Your task to perform on an android device: turn pop-ups off in chrome Image 0: 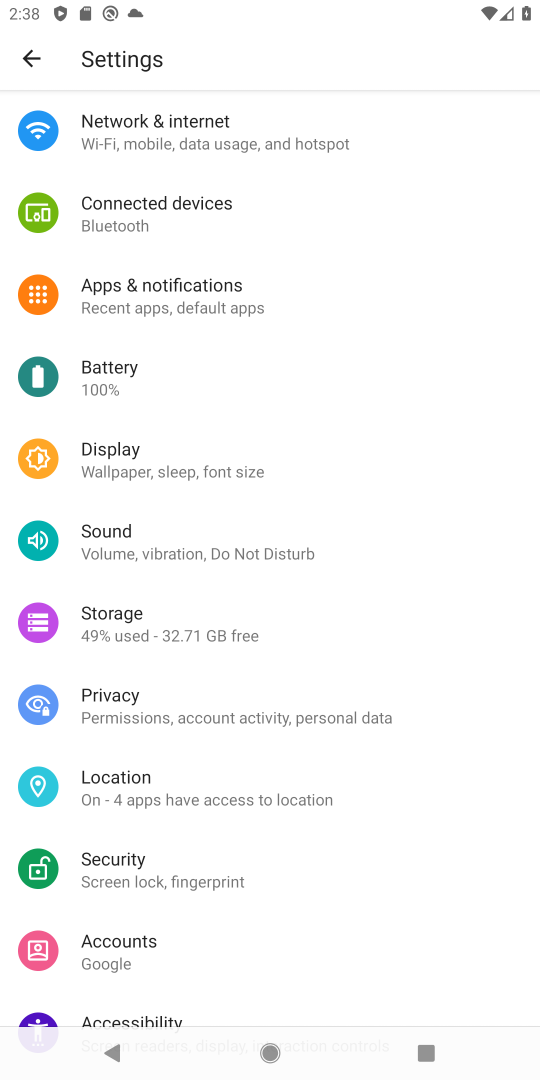
Step 0: press home button
Your task to perform on an android device: turn pop-ups off in chrome Image 1: 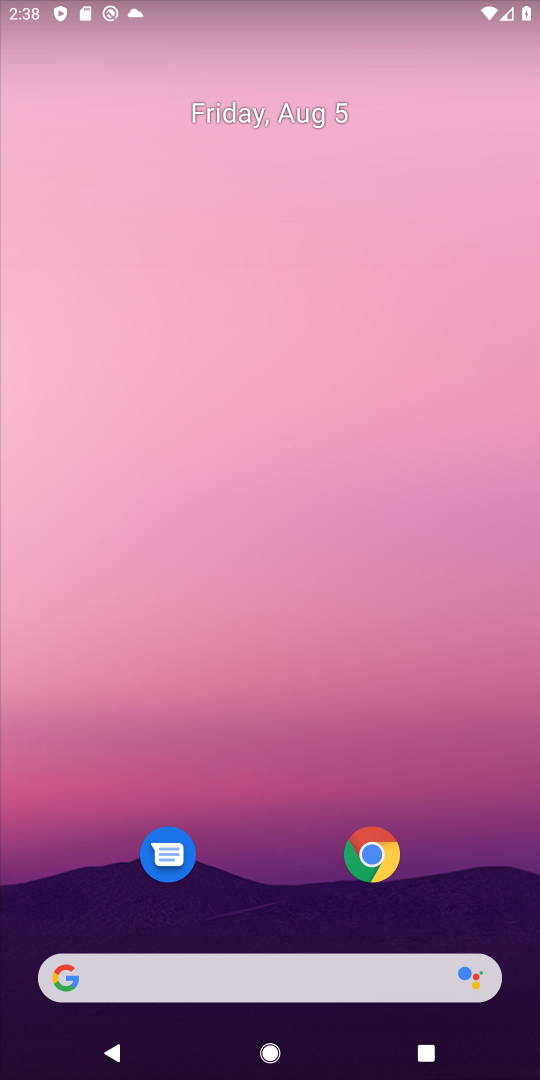
Step 1: click (366, 869)
Your task to perform on an android device: turn pop-ups off in chrome Image 2: 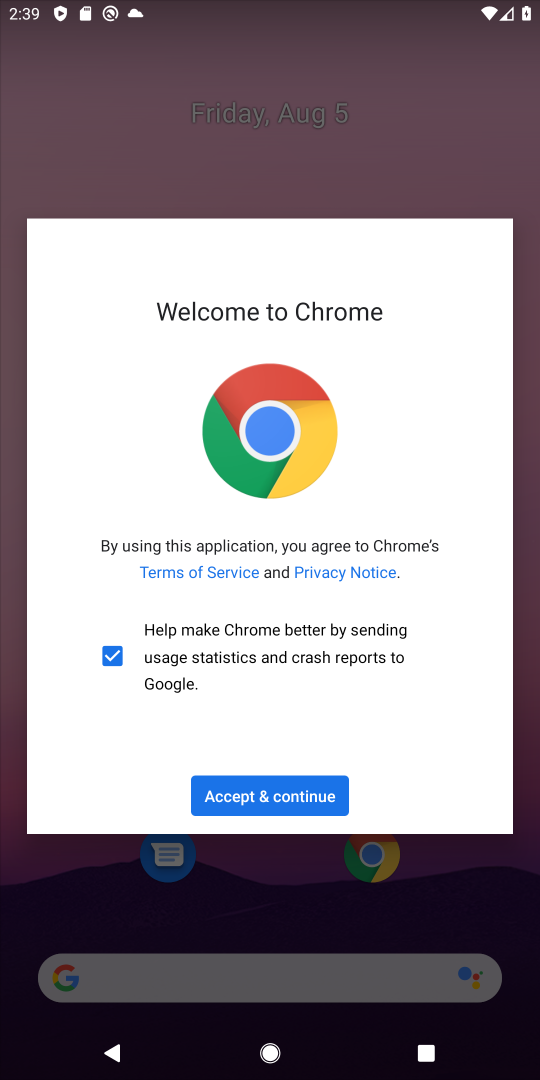
Step 2: click (277, 792)
Your task to perform on an android device: turn pop-ups off in chrome Image 3: 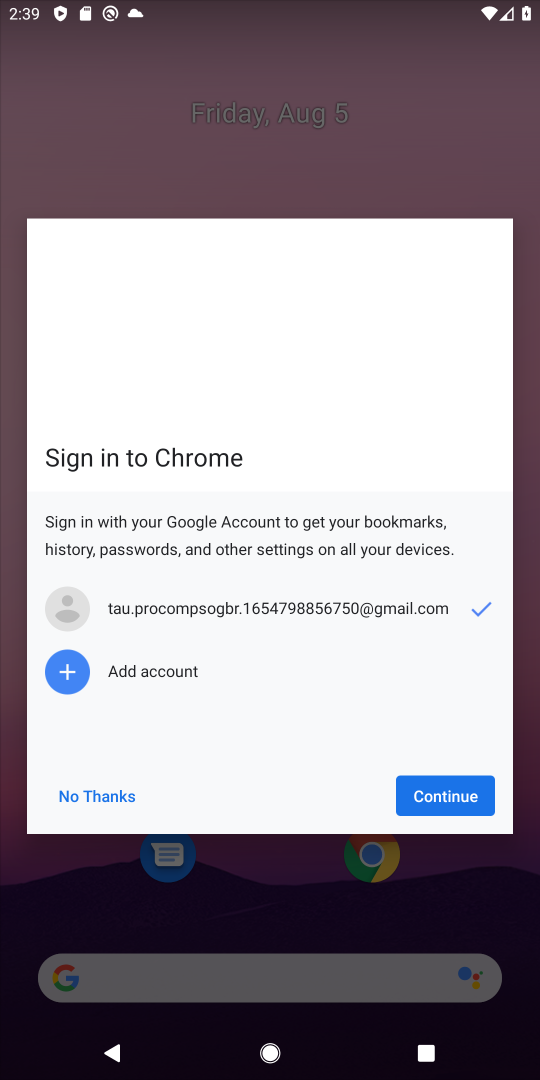
Step 3: click (446, 805)
Your task to perform on an android device: turn pop-ups off in chrome Image 4: 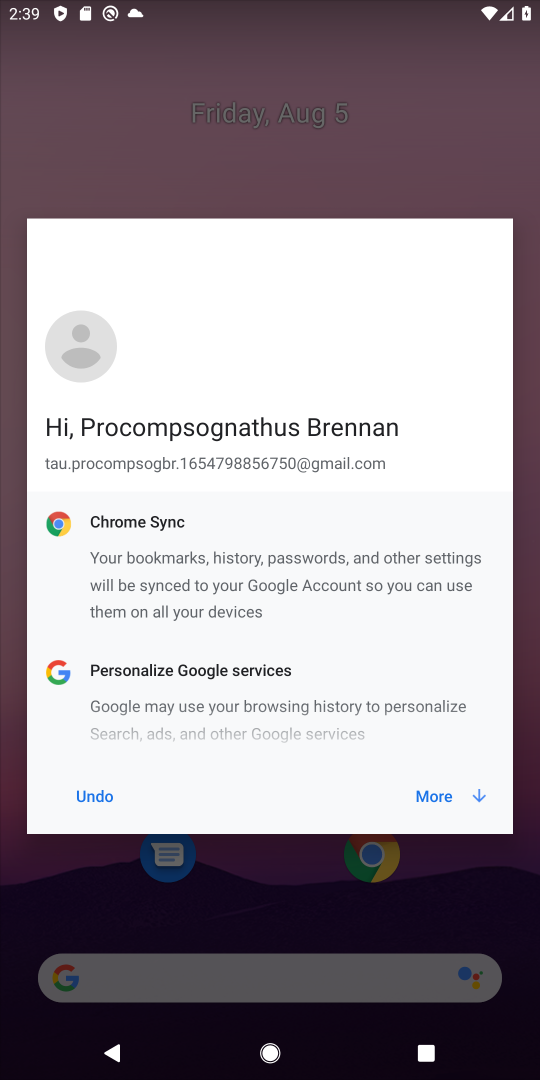
Step 4: click (453, 796)
Your task to perform on an android device: turn pop-ups off in chrome Image 5: 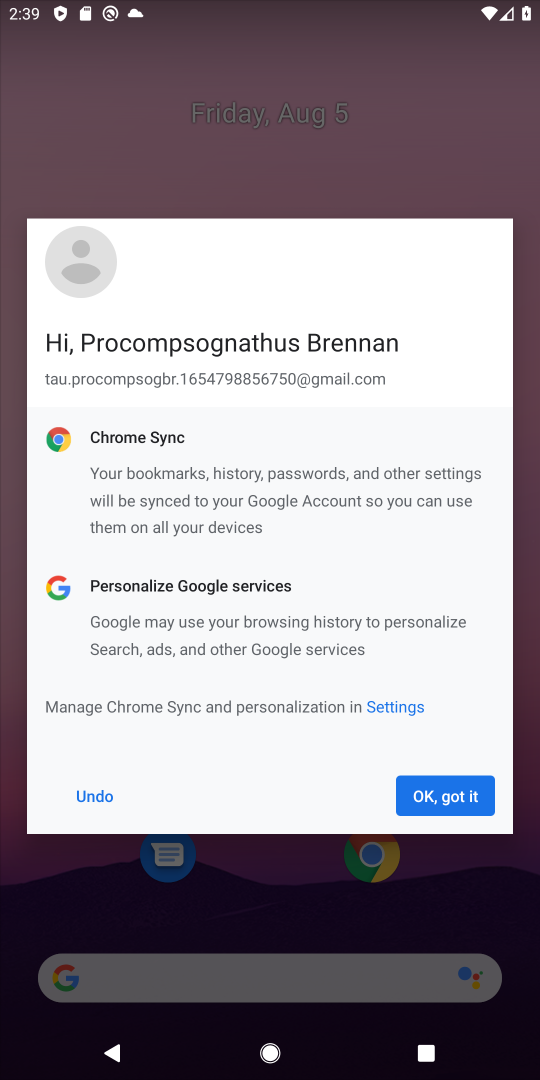
Step 5: click (453, 796)
Your task to perform on an android device: turn pop-ups off in chrome Image 6: 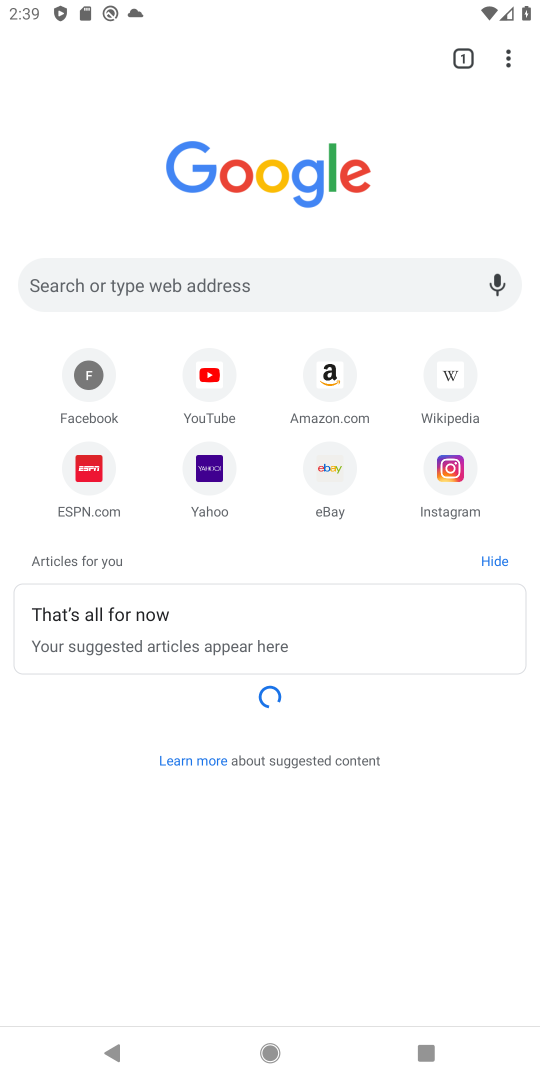
Step 6: click (511, 58)
Your task to perform on an android device: turn pop-ups off in chrome Image 7: 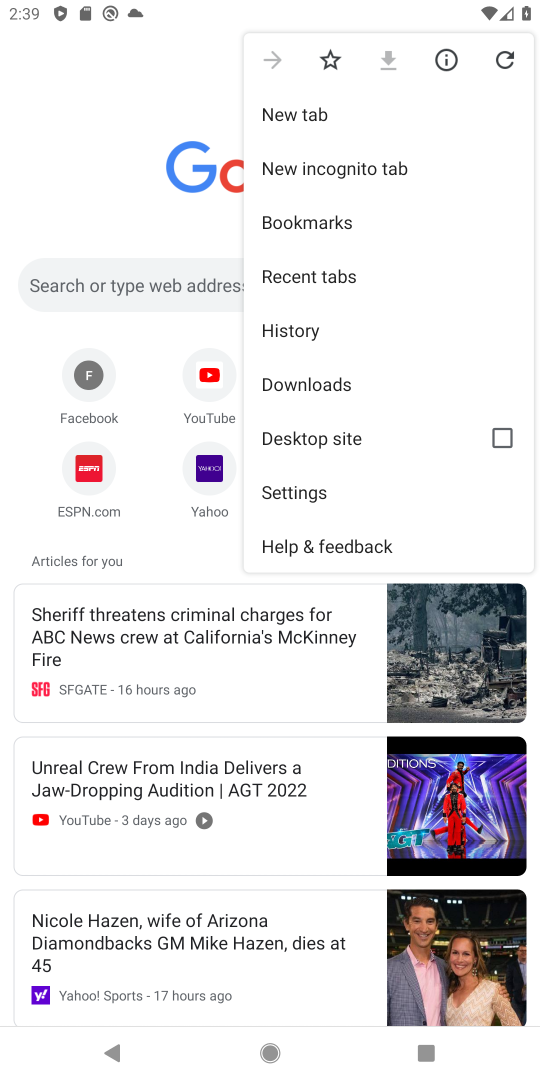
Step 7: click (286, 494)
Your task to perform on an android device: turn pop-ups off in chrome Image 8: 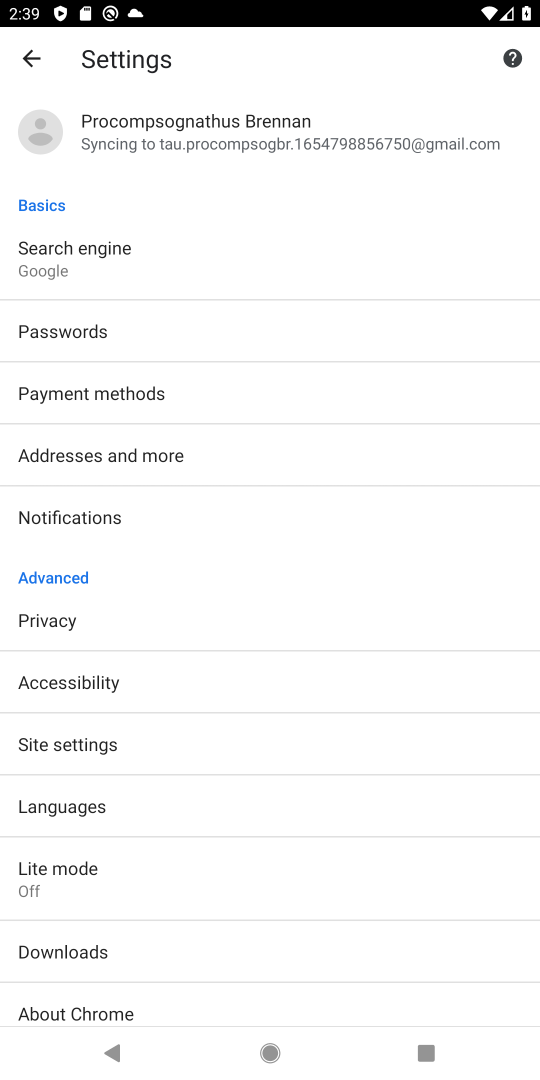
Step 8: click (27, 743)
Your task to perform on an android device: turn pop-ups off in chrome Image 9: 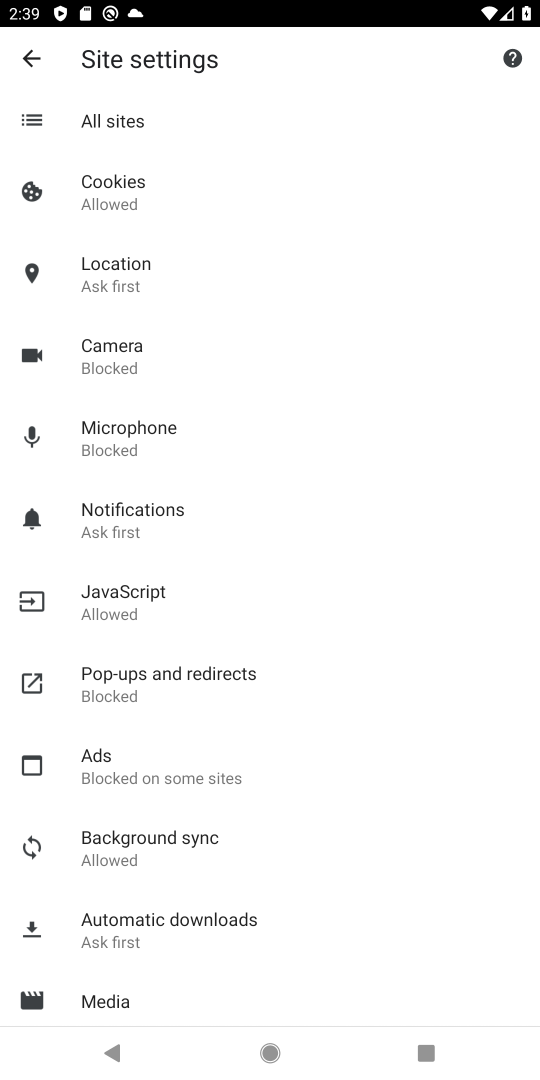
Step 9: click (145, 685)
Your task to perform on an android device: turn pop-ups off in chrome Image 10: 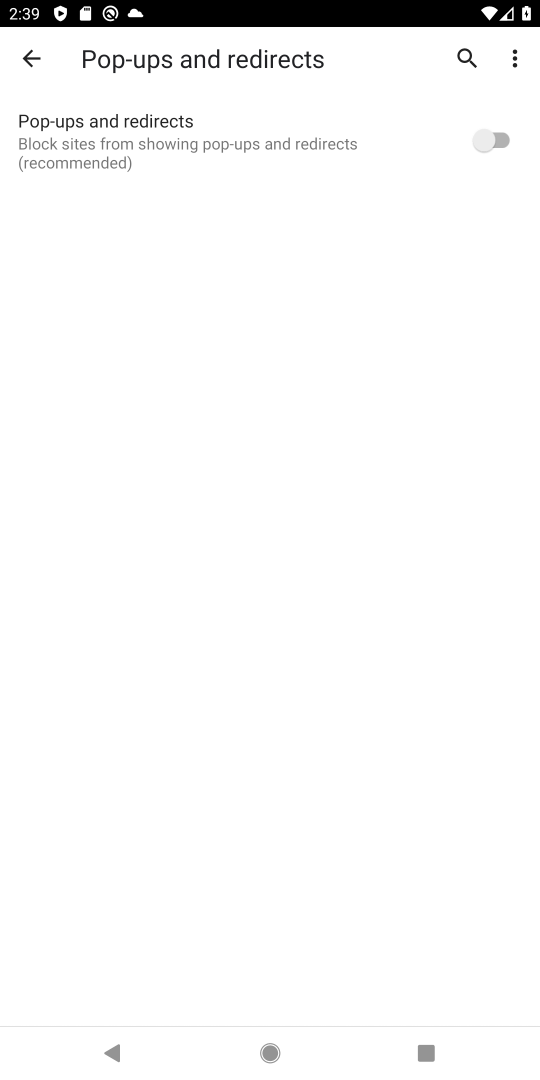
Step 10: click (487, 146)
Your task to perform on an android device: turn pop-ups off in chrome Image 11: 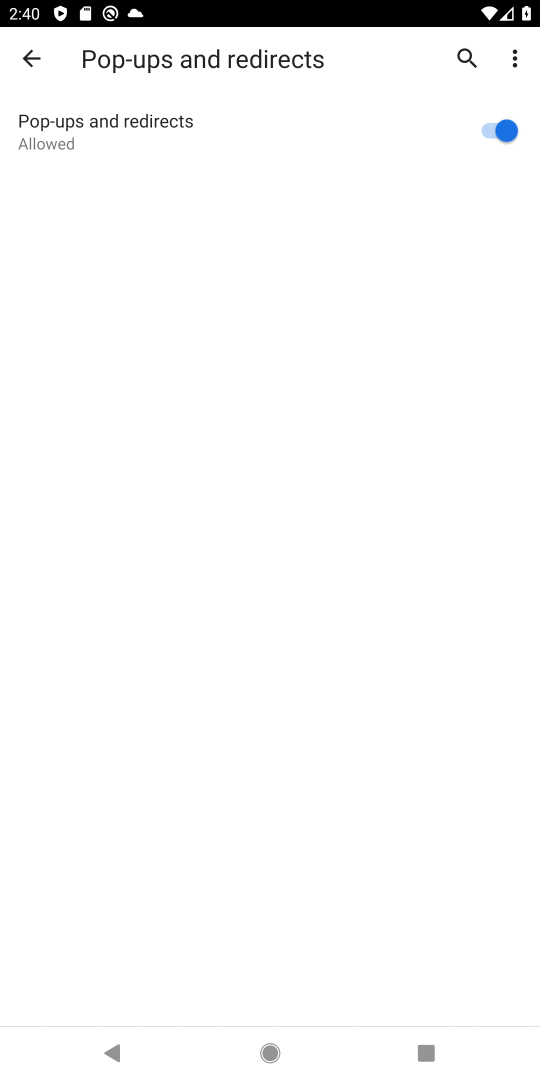
Step 11: task complete